Your task to perform on an android device: Open Google Chrome and click the shortcut for Amazon.com Image 0: 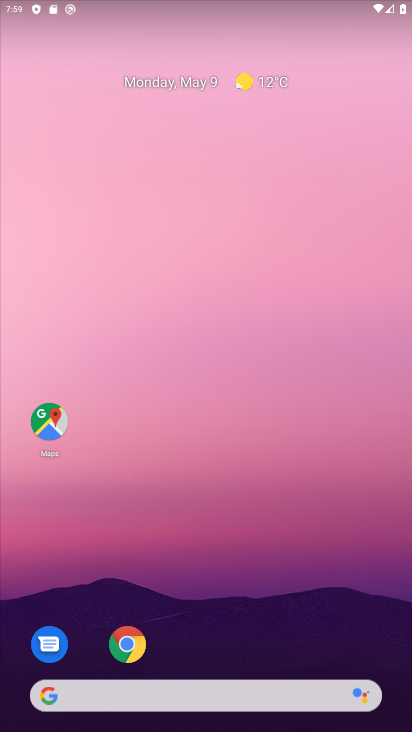
Step 0: drag from (241, 145) to (248, 112)
Your task to perform on an android device: Open Google Chrome and click the shortcut for Amazon.com Image 1: 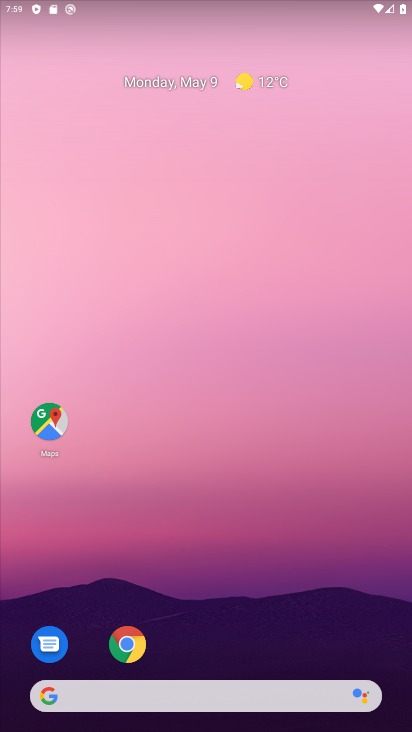
Step 1: click (130, 645)
Your task to perform on an android device: Open Google Chrome and click the shortcut for Amazon.com Image 2: 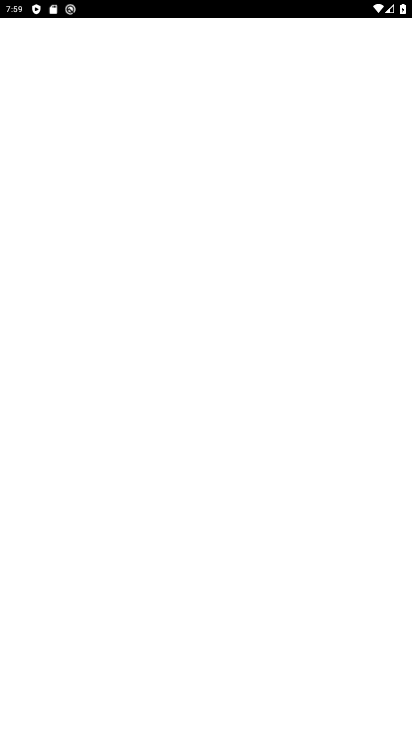
Step 2: click (125, 668)
Your task to perform on an android device: Open Google Chrome and click the shortcut for Amazon.com Image 3: 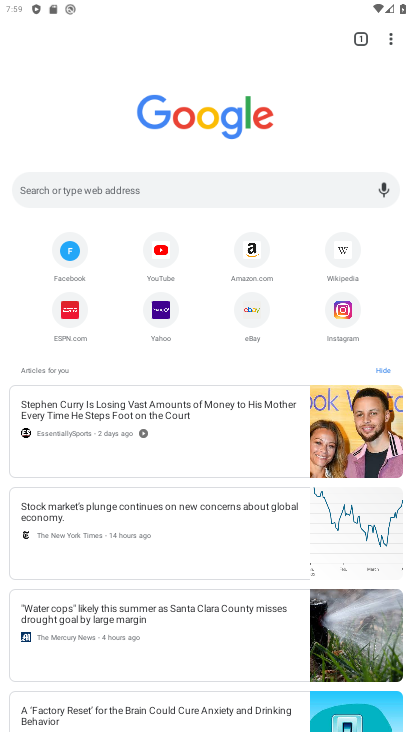
Step 3: click (252, 251)
Your task to perform on an android device: Open Google Chrome and click the shortcut for Amazon.com Image 4: 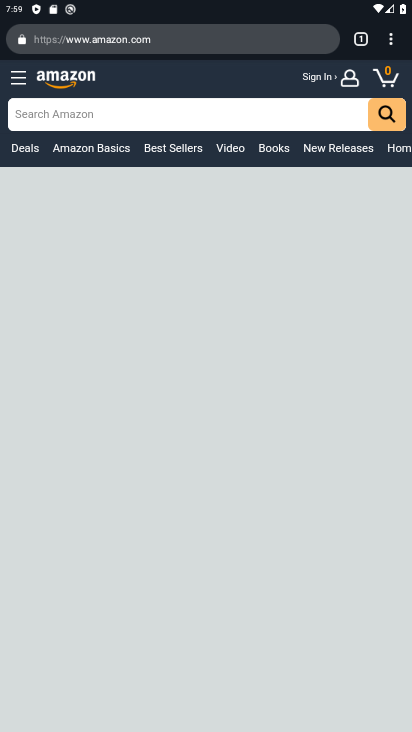
Step 4: click (249, 258)
Your task to perform on an android device: Open Google Chrome and click the shortcut for Amazon.com Image 5: 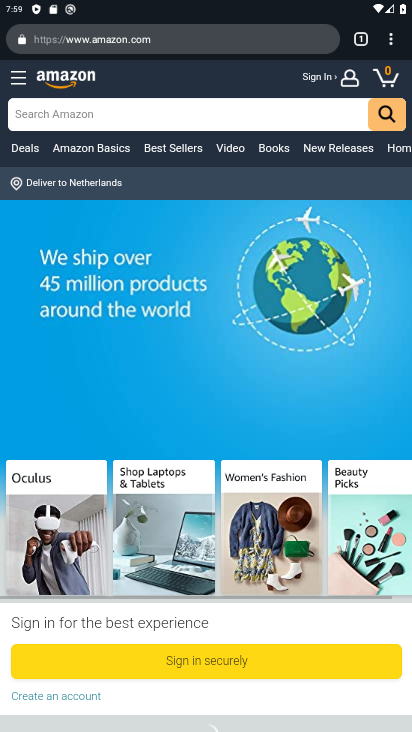
Step 5: click (251, 251)
Your task to perform on an android device: Open Google Chrome and click the shortcut for Amazon.com Image 6: 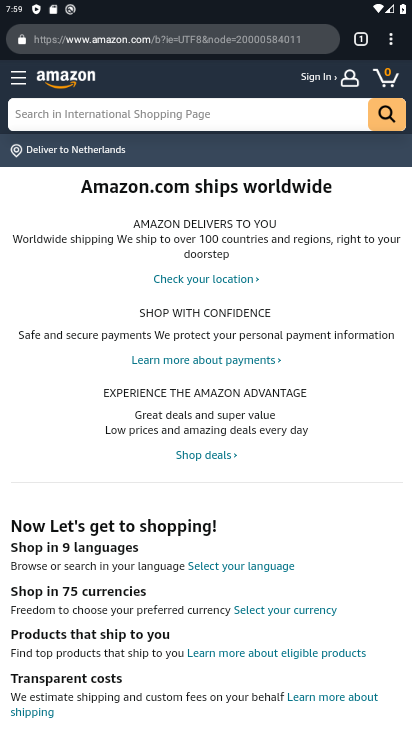
Step 6: task complete